Your task to perform on an android device: open app "TextNow: Call + Text Unlimited" (install if not already installed) Image 0: 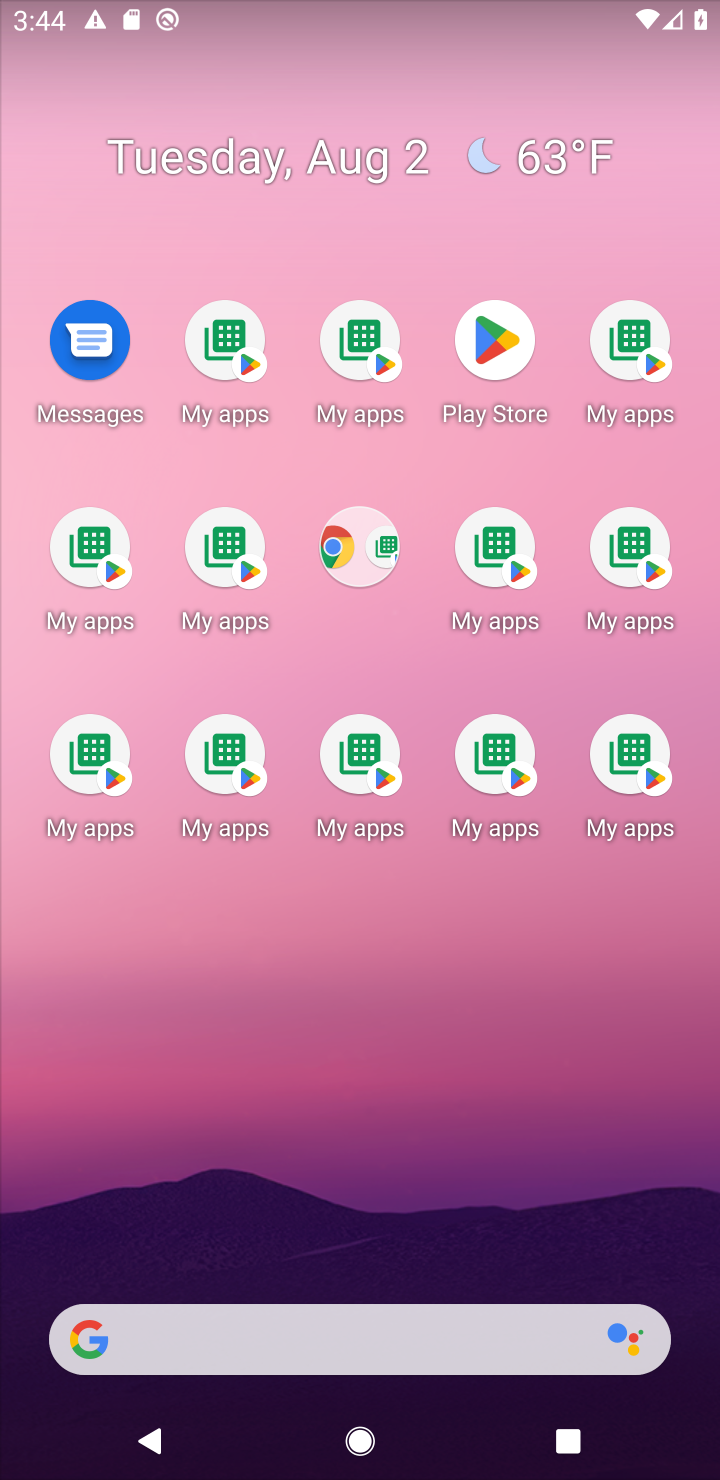
Step 0: click (352, 157)
Your task to perform on an android device: open app "TextNow: Call + Text Unlimited" (install if not already installed) Image 1: 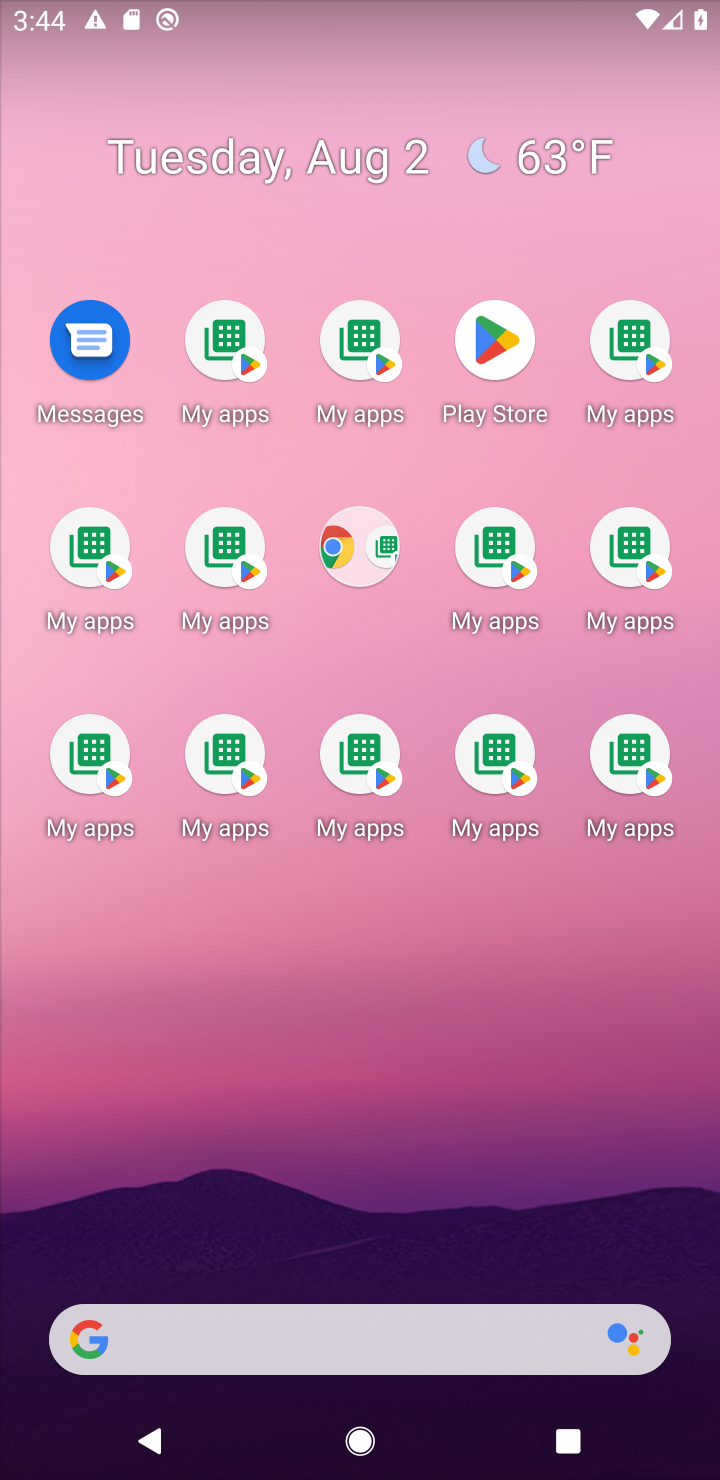
Step 1: drag from (41, 481) to (479, 356)
Your task to perform on an android device: open app "TextNow: Call + Text Unlimited" (install if not already installed) Image 2: 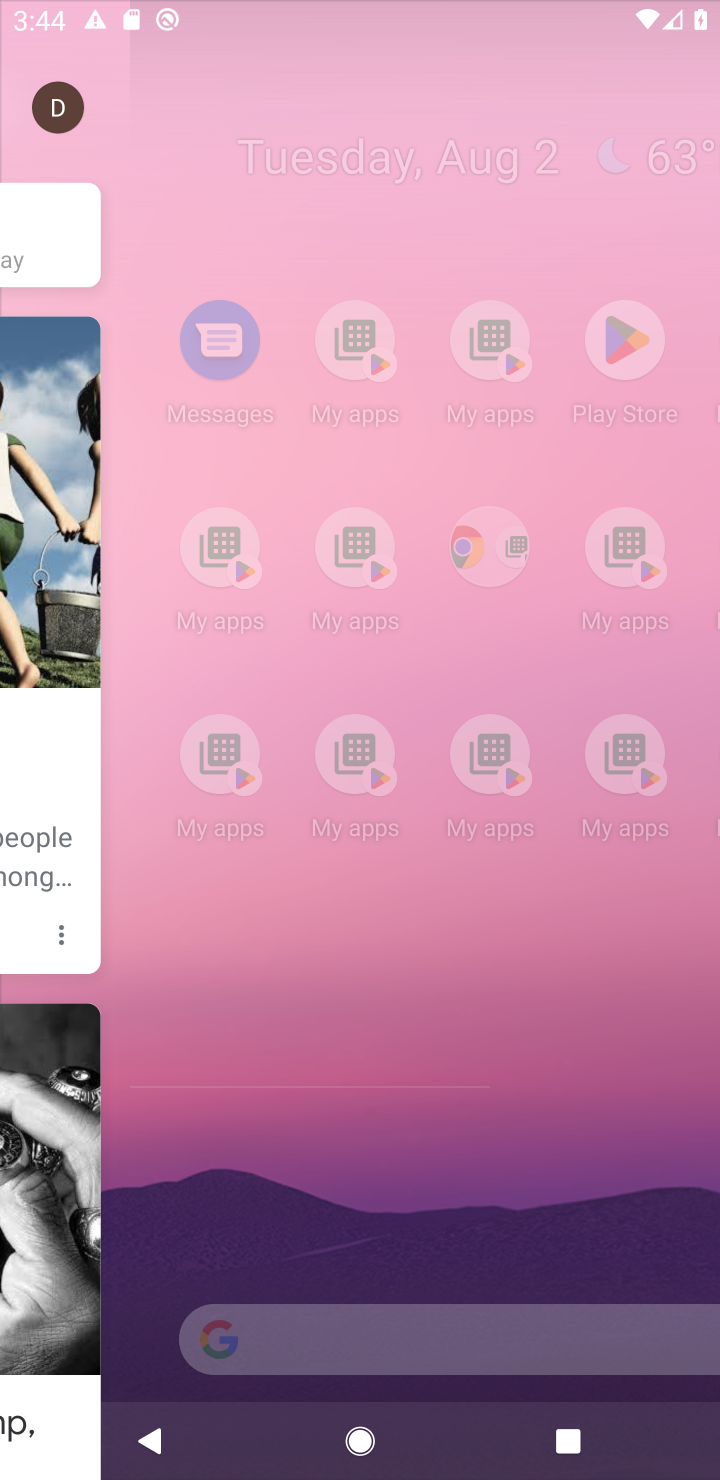
Step 2: drag from (499, 422) to (85, 420)
Your task to perform on an android device: open app "TextNow: Call + Text Unlimited" (install if not already installed) Image 3: 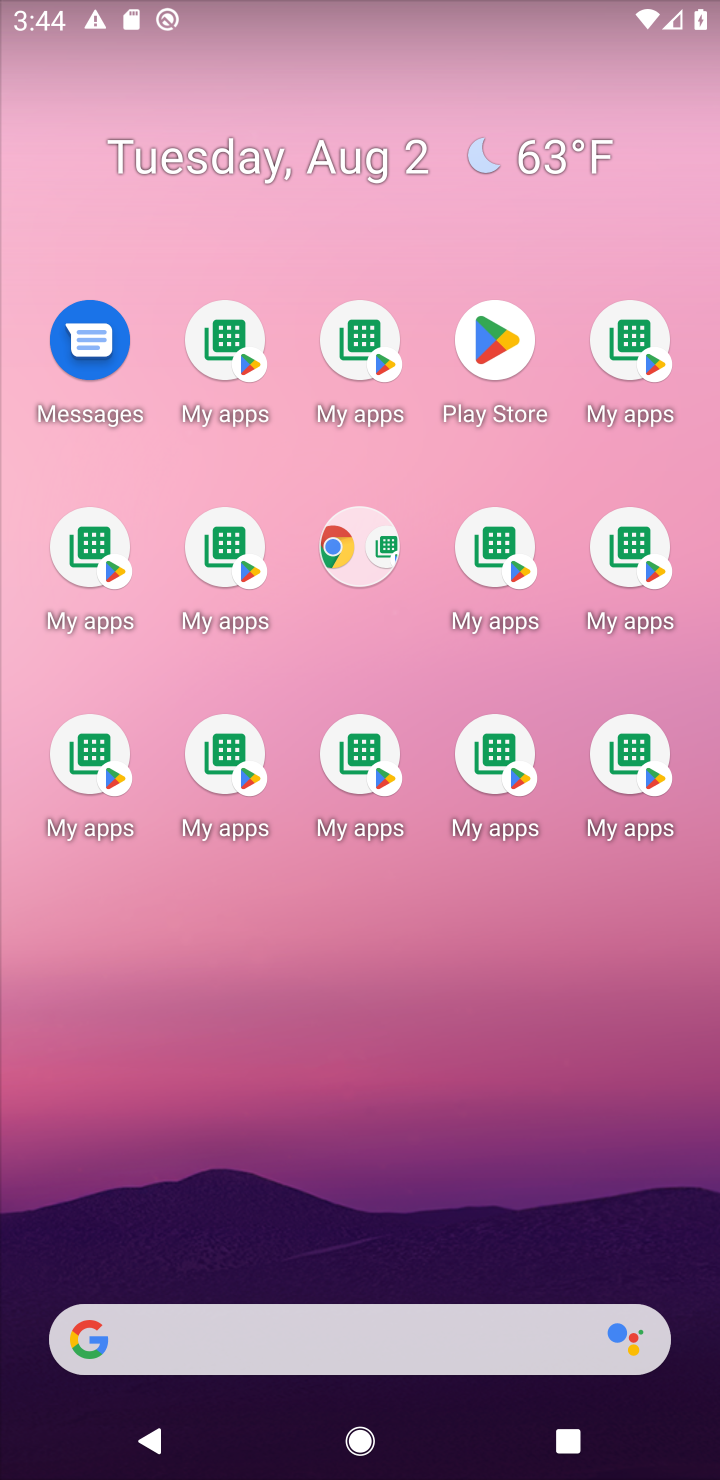
Step 3: drag from (75, 527) to (193, 504)
Your task to perform on an android device: open app "TextNow: Call + Text Unlimited" (install if not already installed) Image 4: 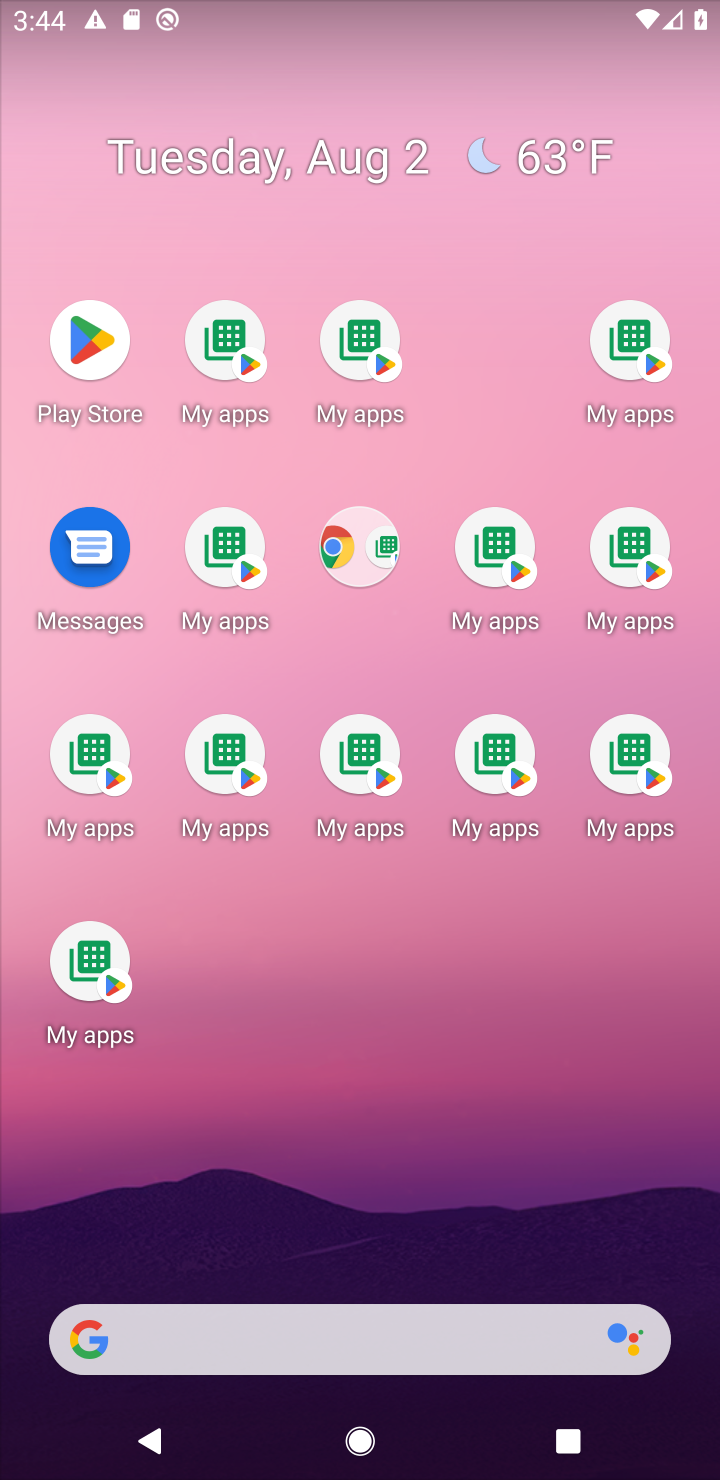
Step 4: click (95, 333)
Your task to perform on an android device: open app "TextNow: Call + Text Unlimited" (install if not already installed) Image 5: 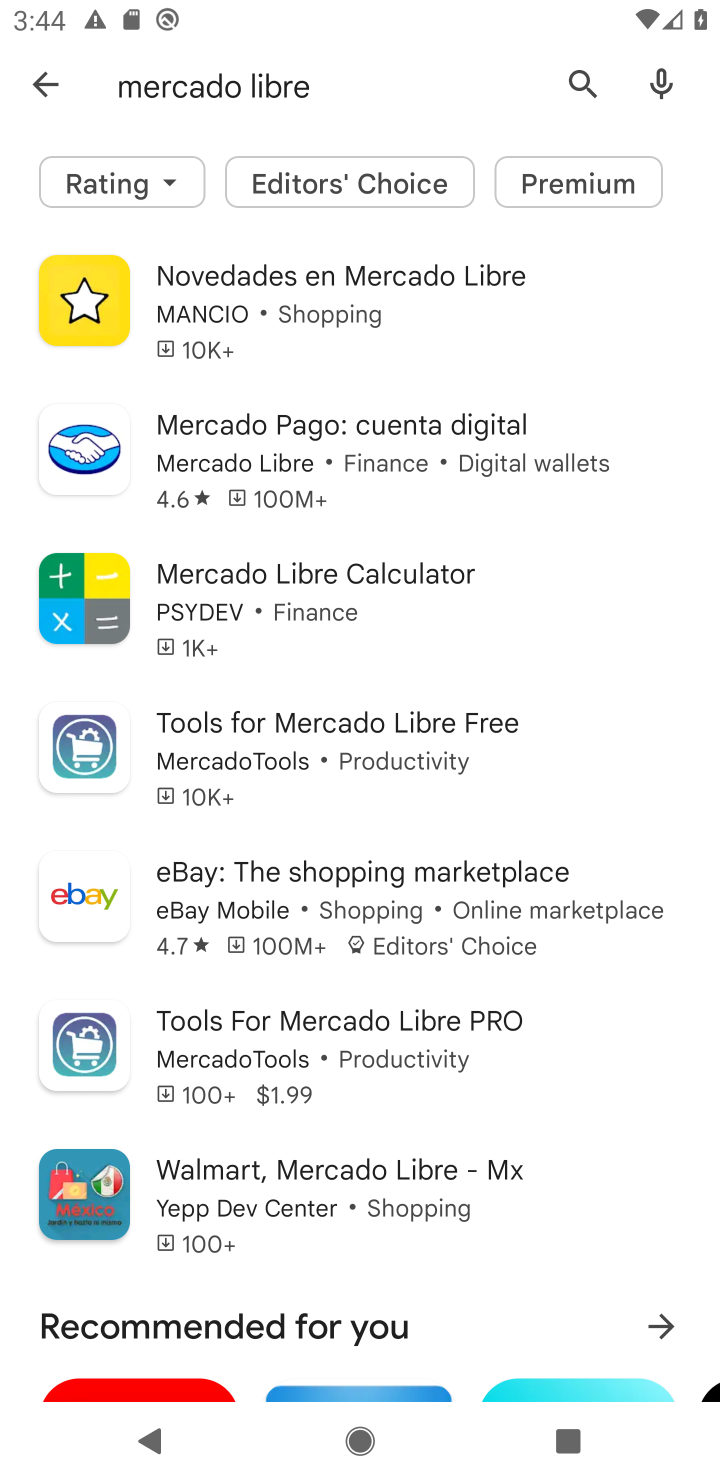
Step 5: click (578, 65)
Your task to perform on an android device: open app "TextNow: Call + Text Unlimited" (install if not already installed) Image 6: 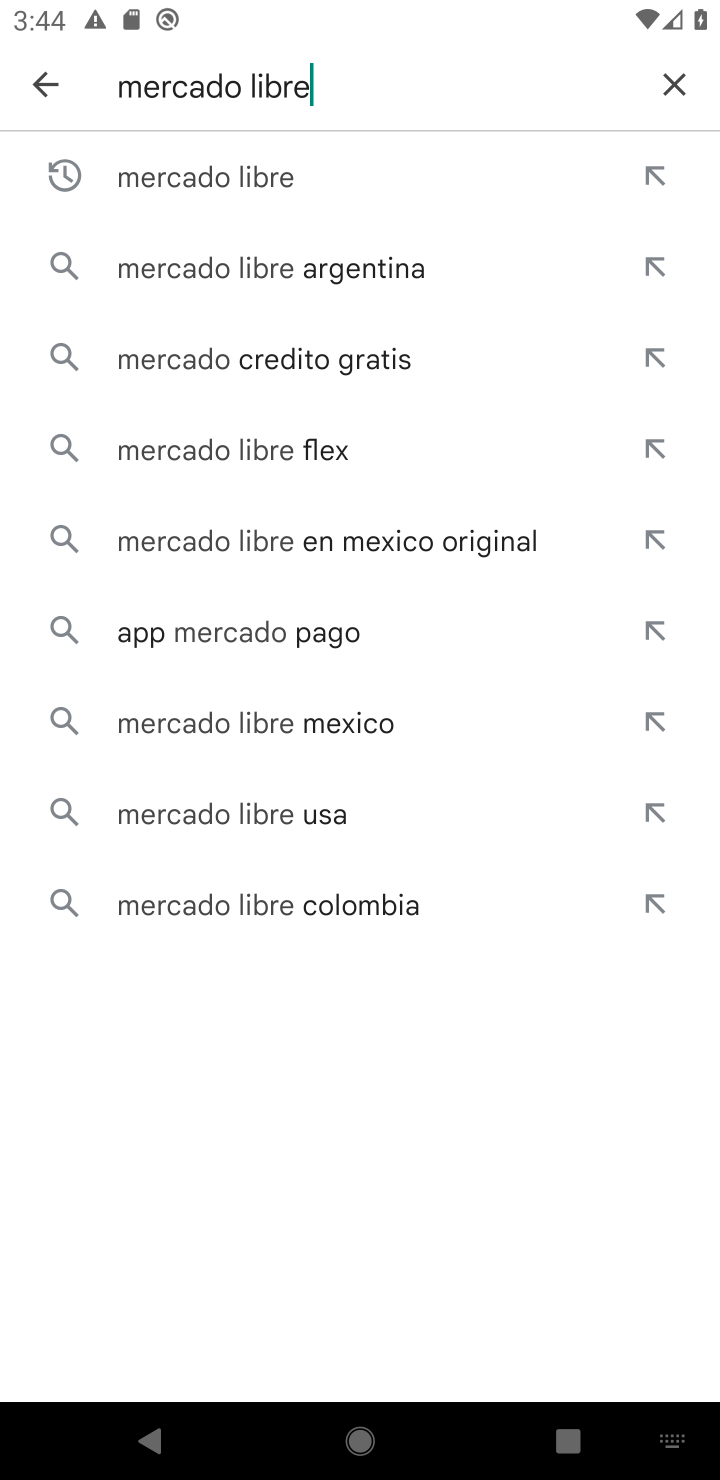
Step 6: click (672, 66)
Your task to perform on an android device: open app "TextNow: Call + Text Unlimited" (install if not already installed) Image 7: 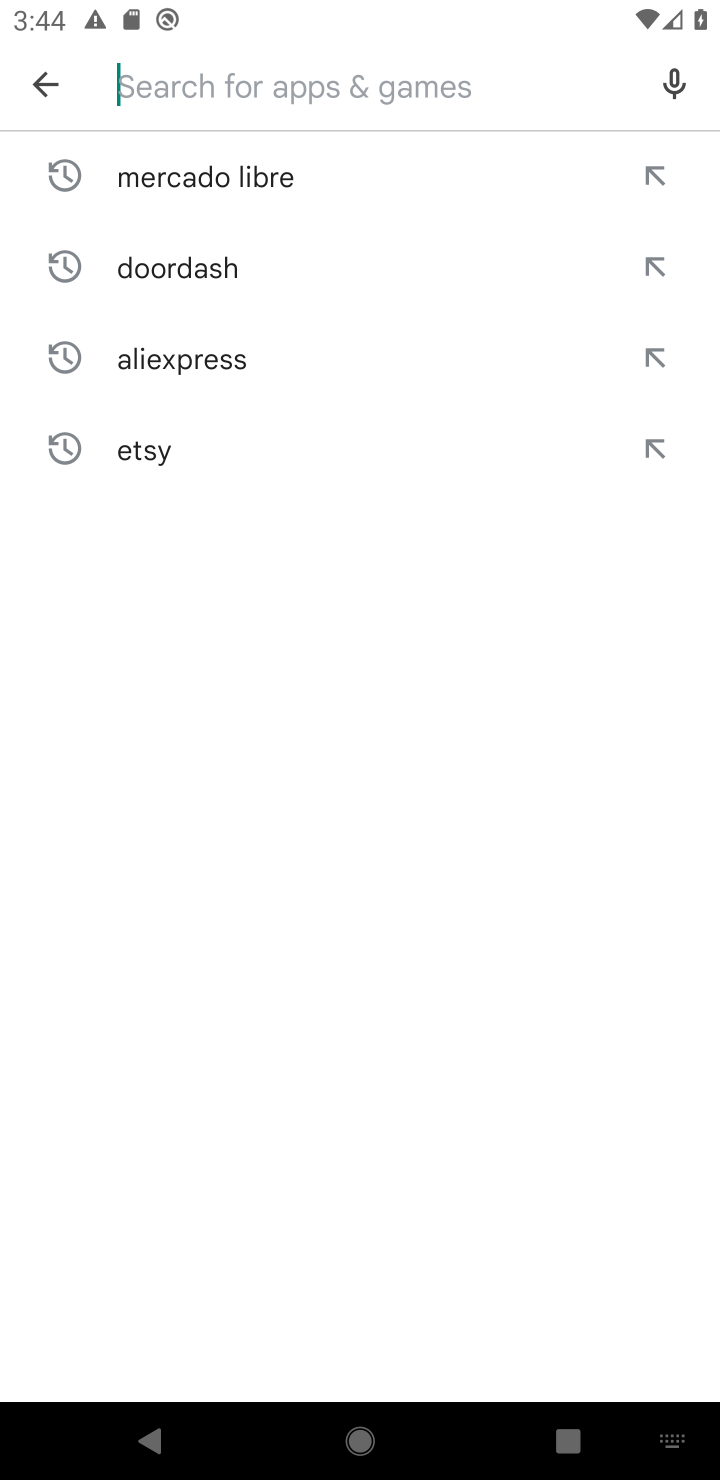
Step 7: type "texnow"
Your task to perform on an android device: open app "TextNow: Call + Text Unlimited" (install if not already installed) Image 8: 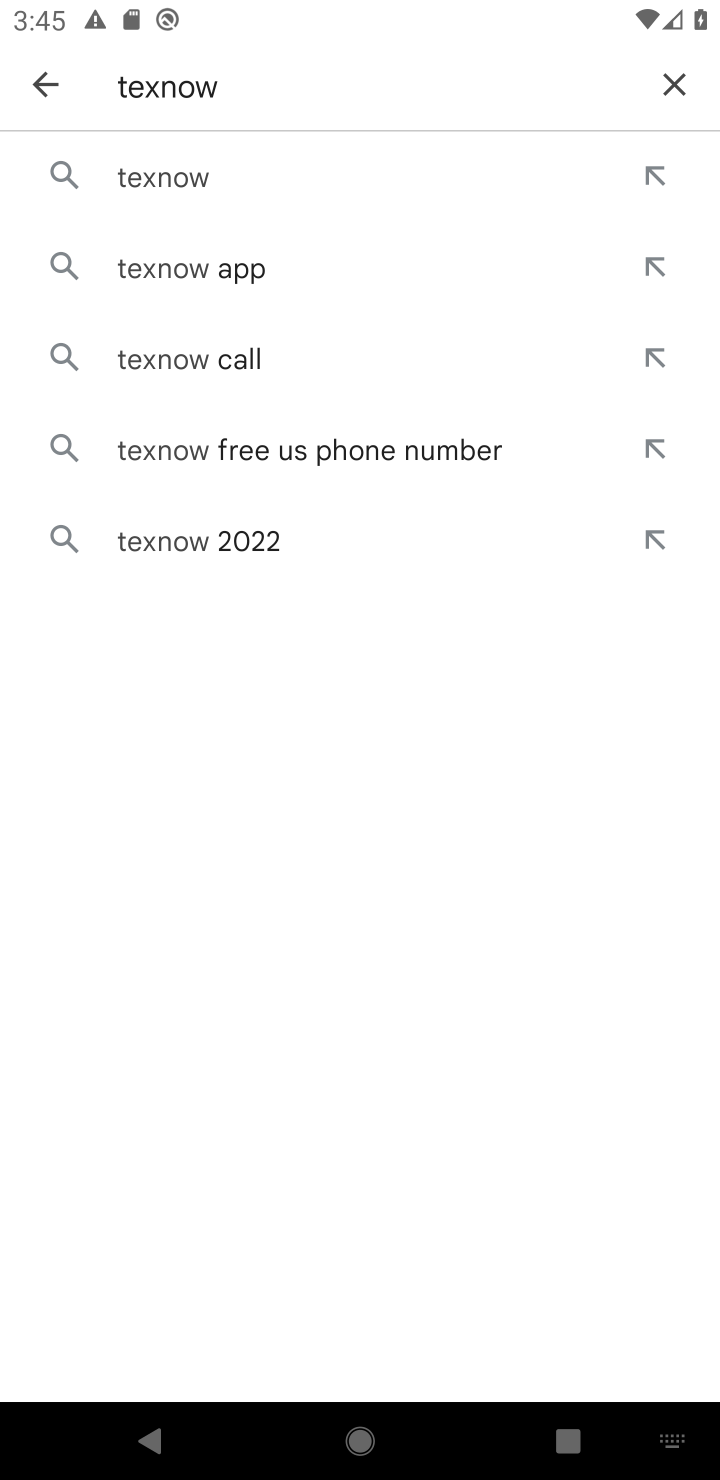
Step 8: click (166, 187)
Your task to perform on an android device: open app "TextNow: Call + Text Unlimited" (install if not already installed) Image 9: 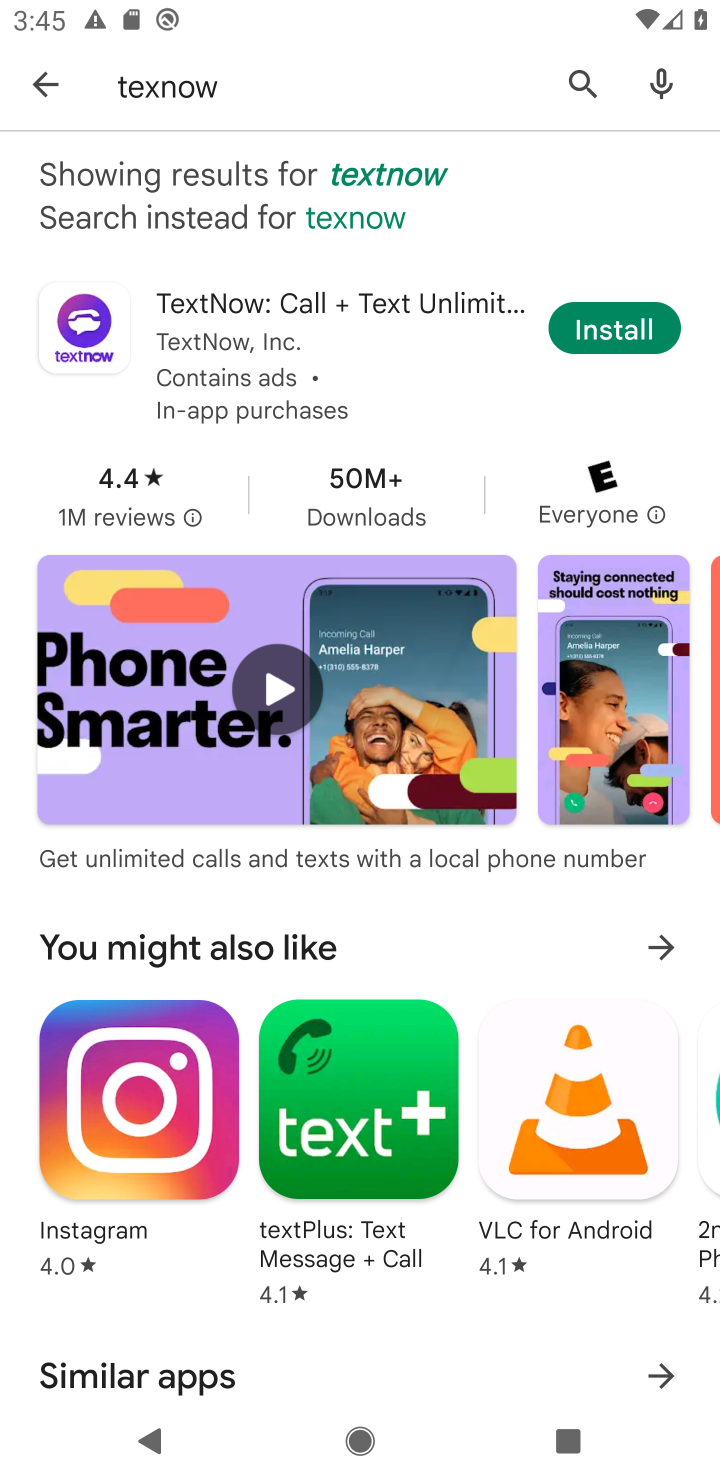
Step 9: click (608, 298)
Your task to perform on an android device: open app "TextNow: Call + Text Unlimited" (install if not already installed) Image 10: 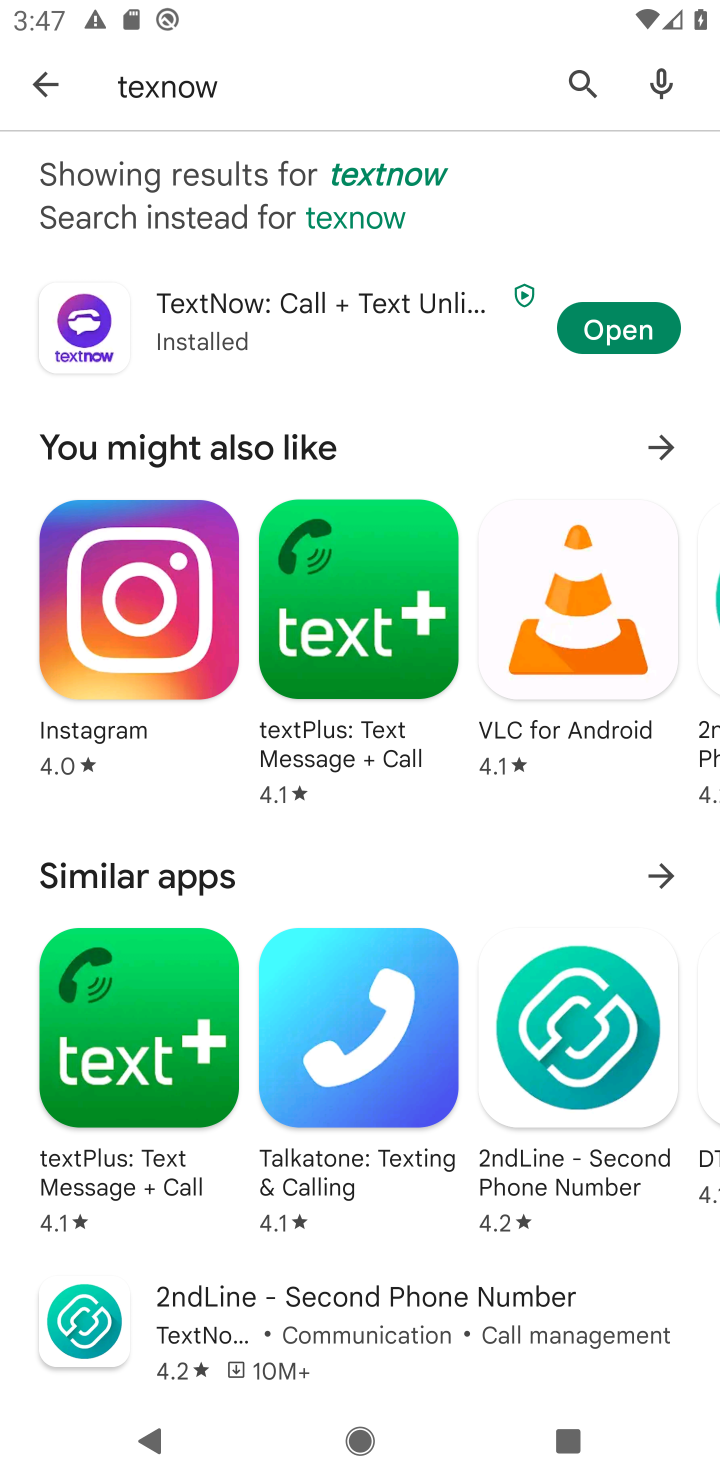
Step 10: click (640, 347)
Your task to perform on an android device: open app "TextNow: Call + Text Unlimited" (install if not already installed) Image 11: 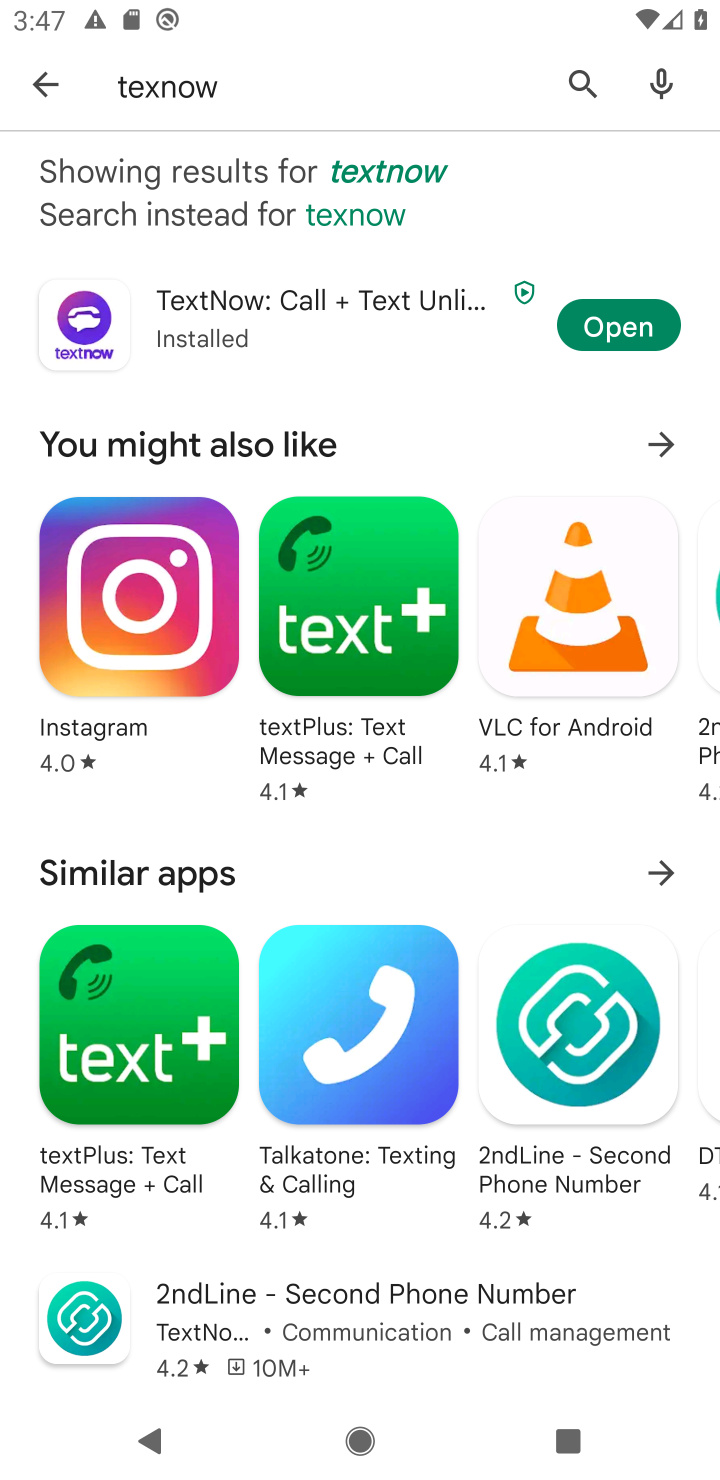
Step 11: click (629, 325)
Your task to perform on an android device: open app "TextNow: Call + Text Unlimited" (install if not already installed) Image 12: 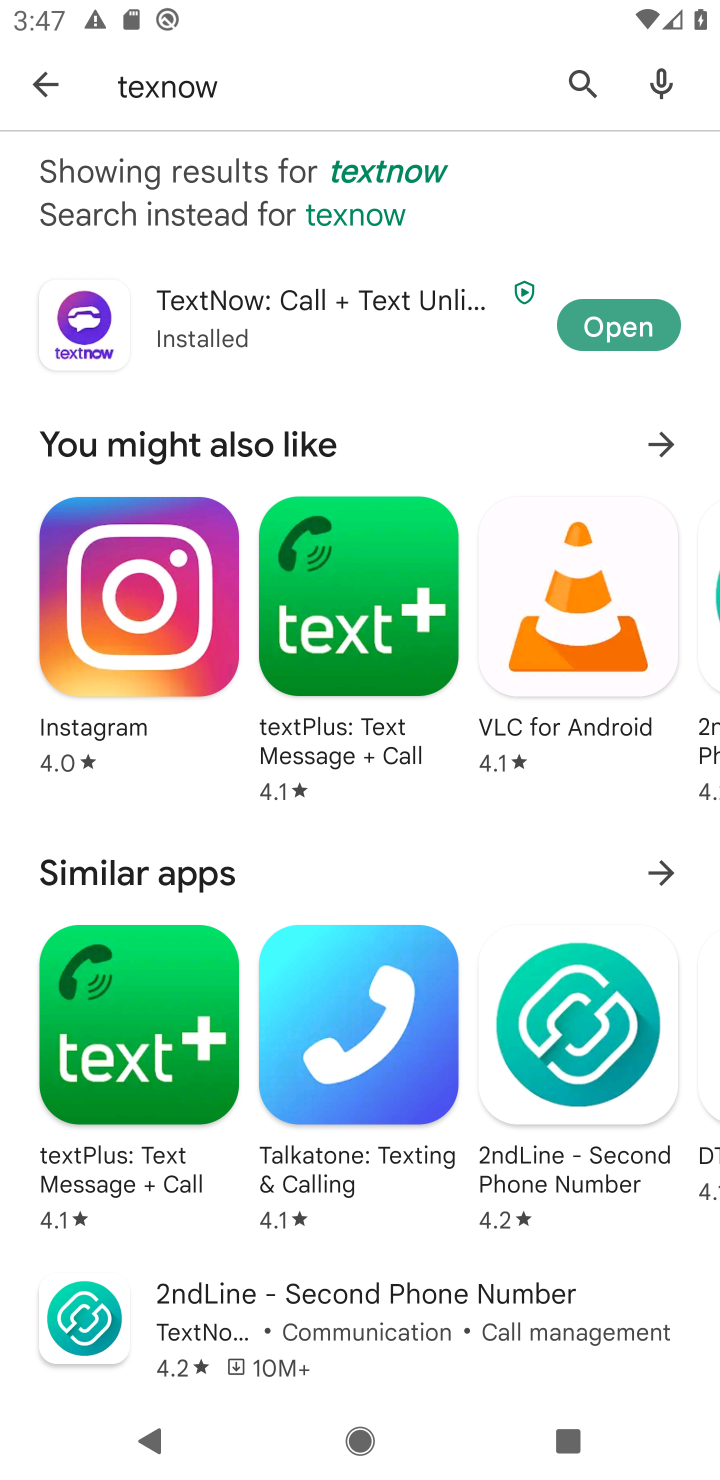
Step 12: click (628, 337)
Your task to perform on an android device: open app "TextNow: Call + Text Unlimited" (install if not already installed) Image 13: 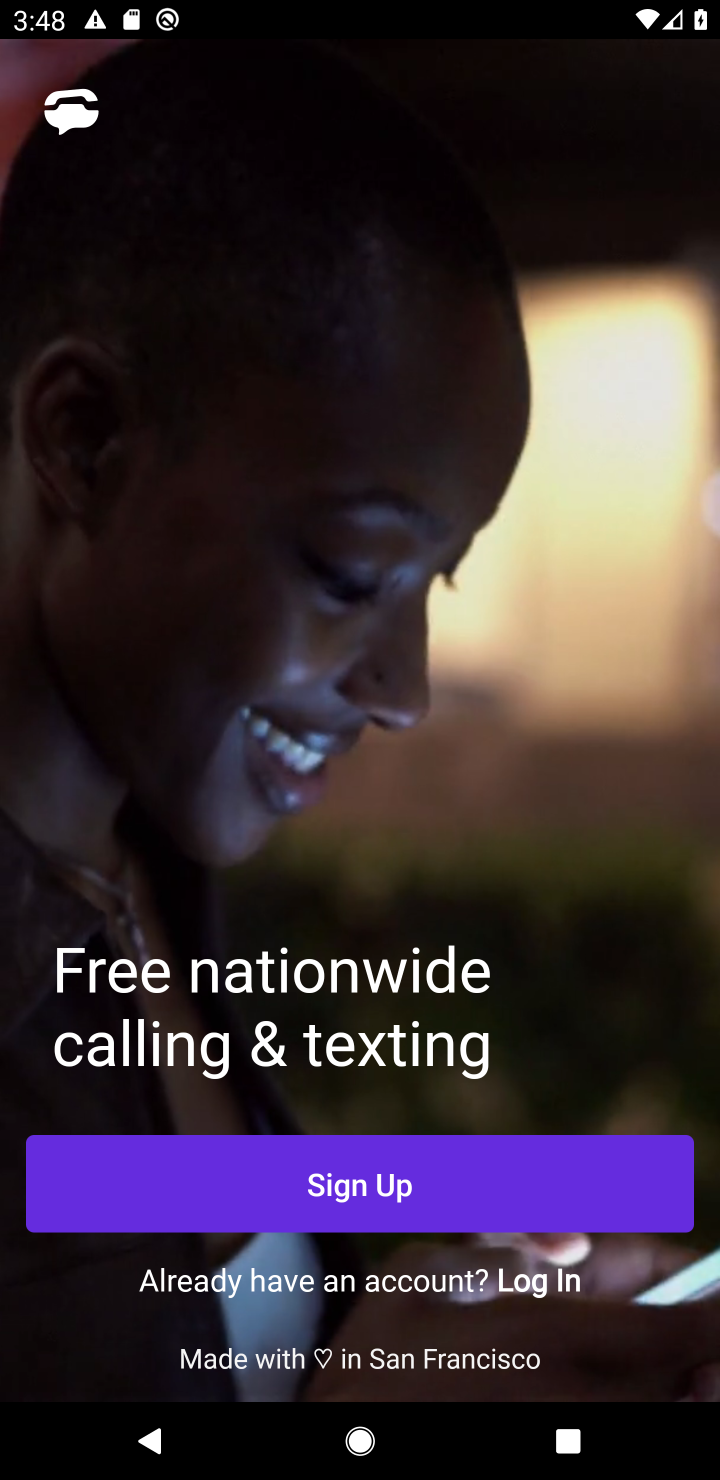
Step 13: task complete